Your task to perform on an android device: Show me productivity apps on the Play Store Image 0: 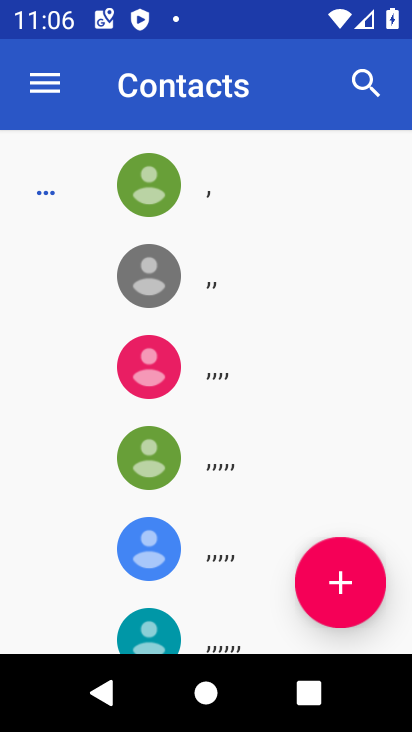
Step 0: drag from (223, 584) to (295, 326)
Your task to perform on an android device: Show me productivity apps on the Play Store Image 1: 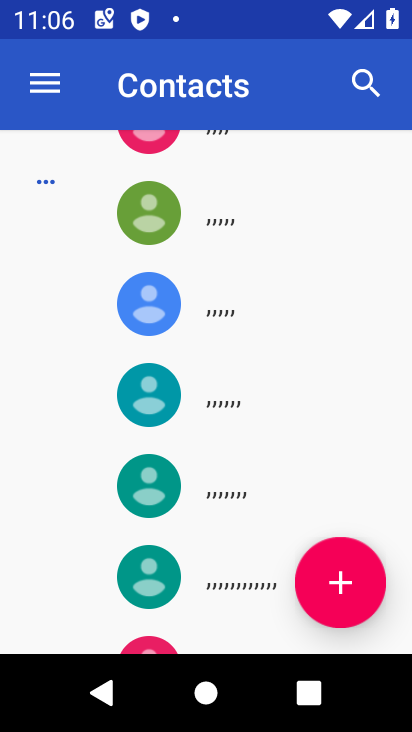
Step 1: drag from (230, 547) to (236, 321)
Your task to perform on an android device: Show me productivity apps on the Play Store Image 2: 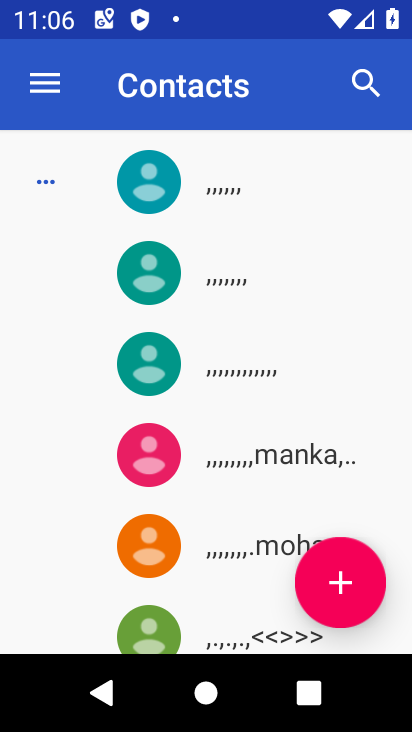
Step 2: press home button
Your task to perform on an android device: Show me productivity apps on the Play Store Image 3: 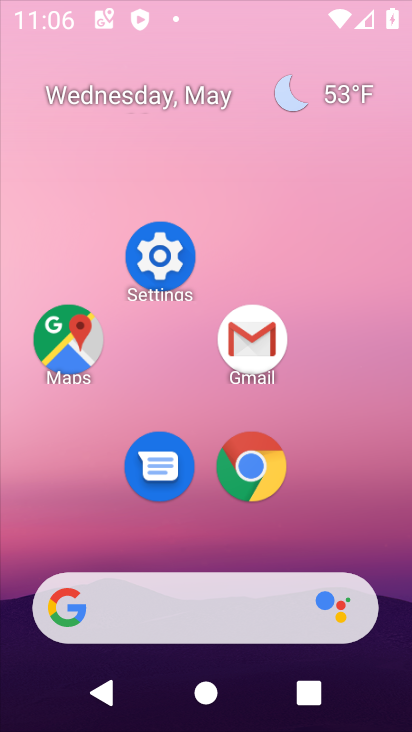
Step 3: drag from (198, 605) to (215, 270)
Your task to perform on an android device: Show me productivity apps on the Play Store Image 4: 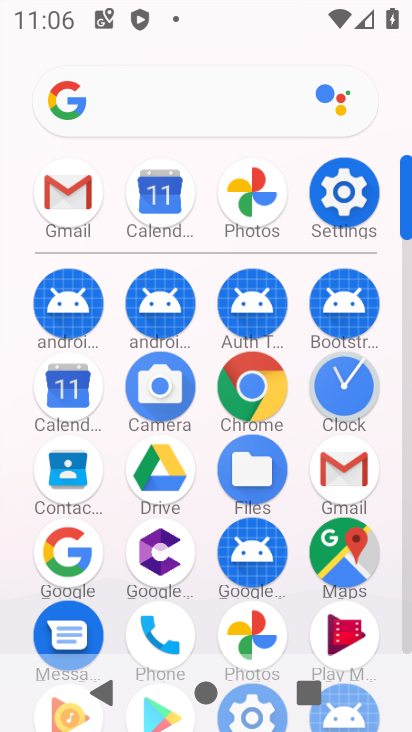
Step 4: drag from (215, 605) to (197, 120)
Your task to perform on an android device: Show me productivity apps on the Play Store Image 5: 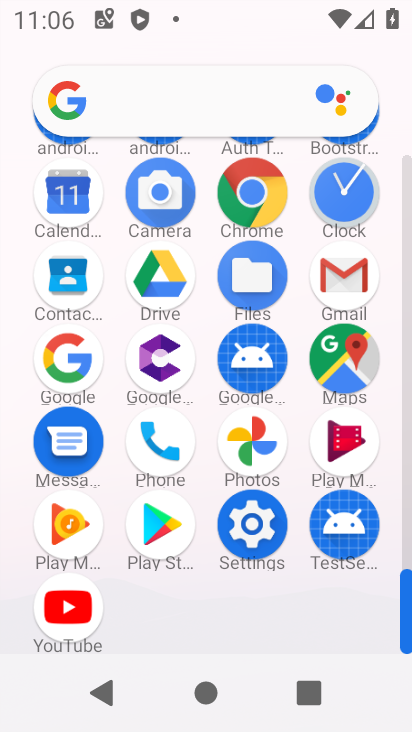
Step 5: click (143, 527)
Your task to perform on an android device: Show me productivity apps on the Play Store Image 6: 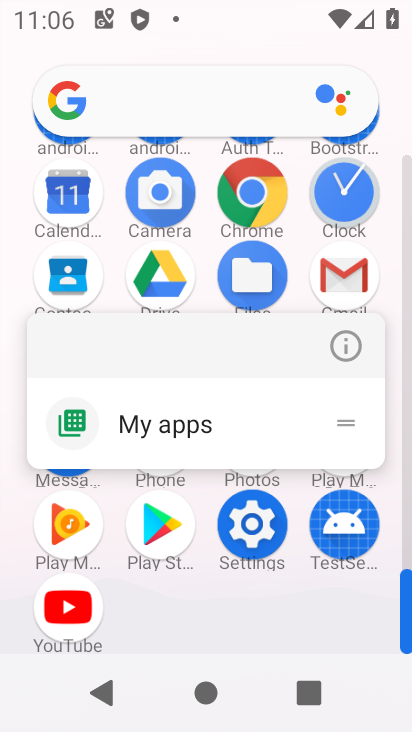
Step 6: click (336, 348)
Your task to perform on an android device: Show me productivity apps on the Play Store Image 7: 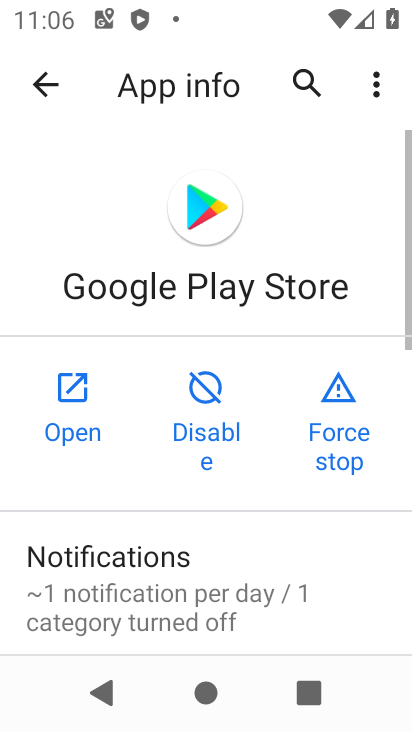
Step 7: click (72, 395)
Your task to perform on an android device: Show me productivity apps on the Play Store Image 8: 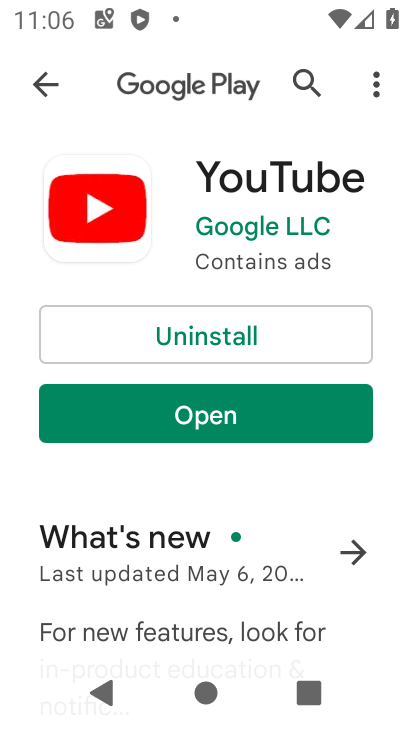
Step 8: click (56, 84)
Your task to perform on an android device: Show me productivity apps on the Play Store Image 9: 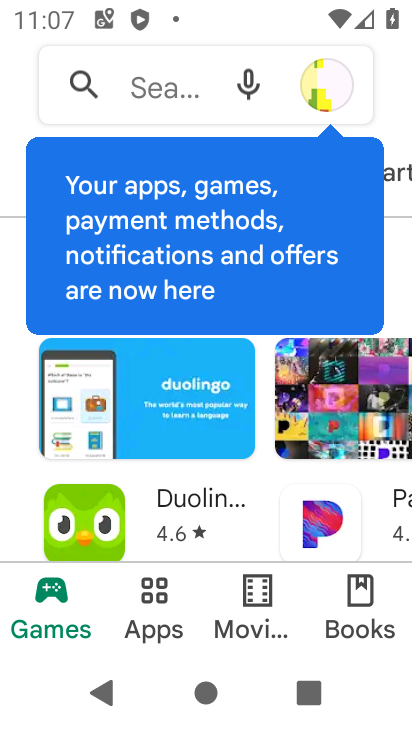
Step 9: drag from (249, 516) to (269, 205)
Your task to perform on an android device: Show me productivity apps on the Play Store Image 10: 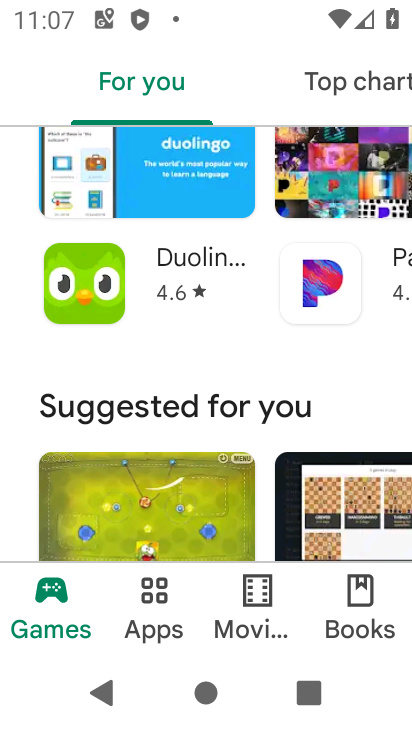
Step 10: drag from (265, 410) to (274, 171)
Your task to perform on an android device: Show me productivity apps on the Play Store Image 11: 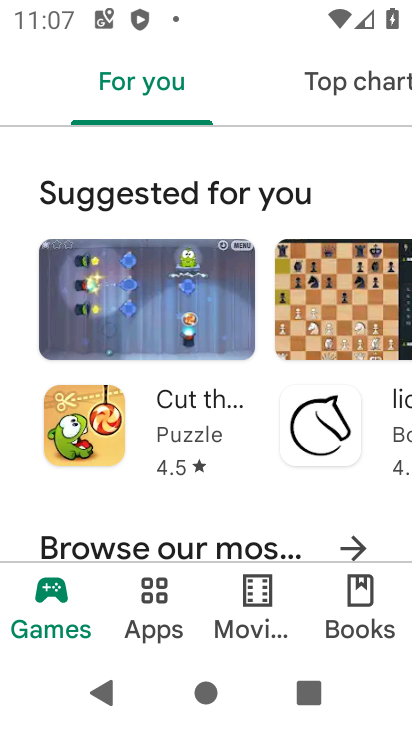
Step 11: click (44, 602)
Your task to perform on an android device: Show me productivity apps on the Play Store Image 12: 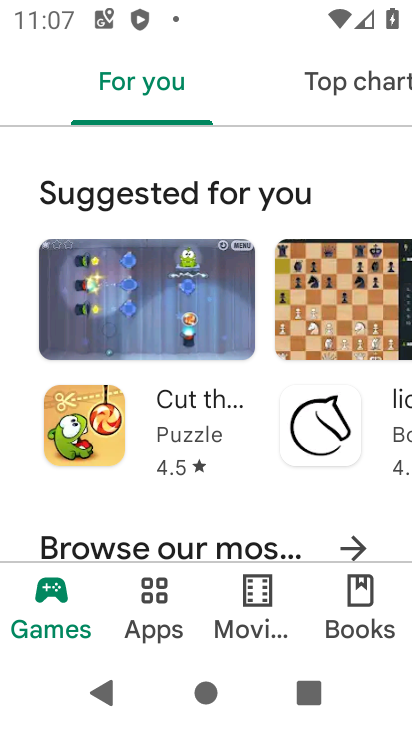
Step 12: drag from (308, 224) to (308, 649)
Your task to perform on an android device: Show me productivity apps on the Play Store Image 13: 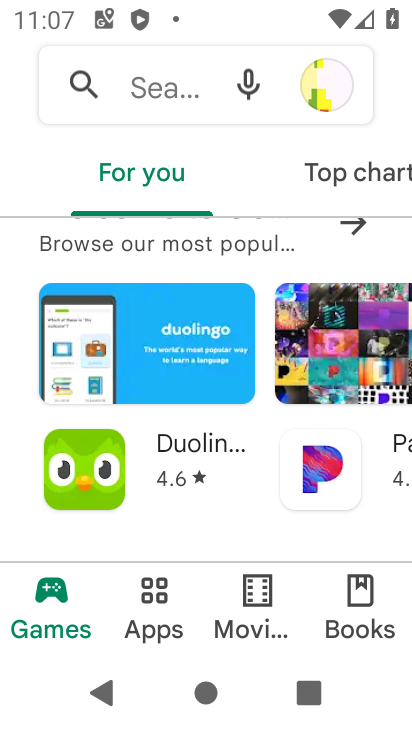
Step 13: click (366, 183)
Your task to perform on an android device: Show me productivity apps on the Play Store Image 14: 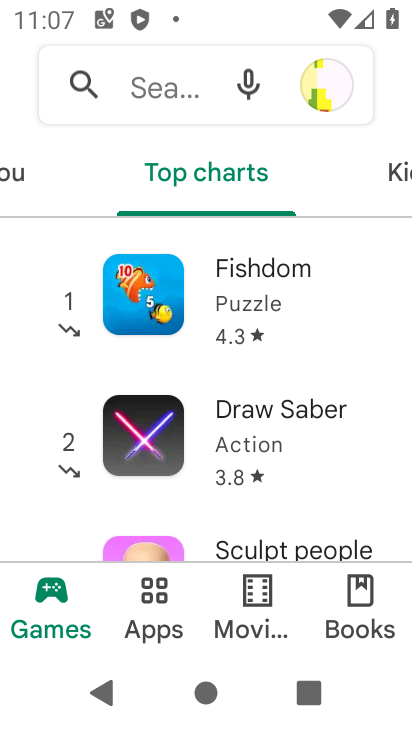
Step 14: drag from (239, 412) to (284, 101)
Your task to perform on an android device: Show me productivity apps on the Play Store Image 15: 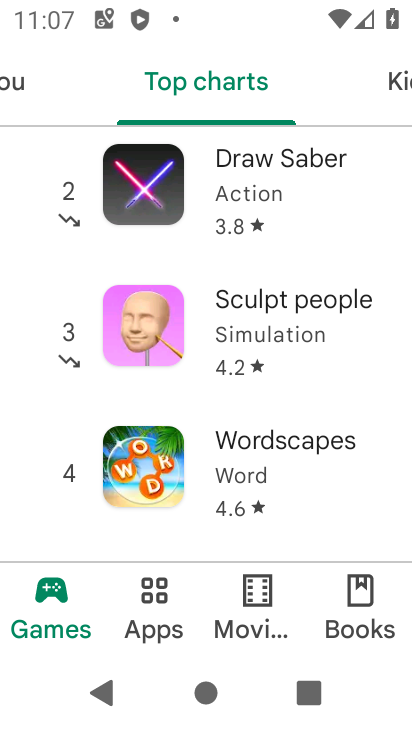
Step 15: drag from (221, 164) to (274, 579)
Your task to perform on an android device: Show me productivity apps on the Play Store Image 16: 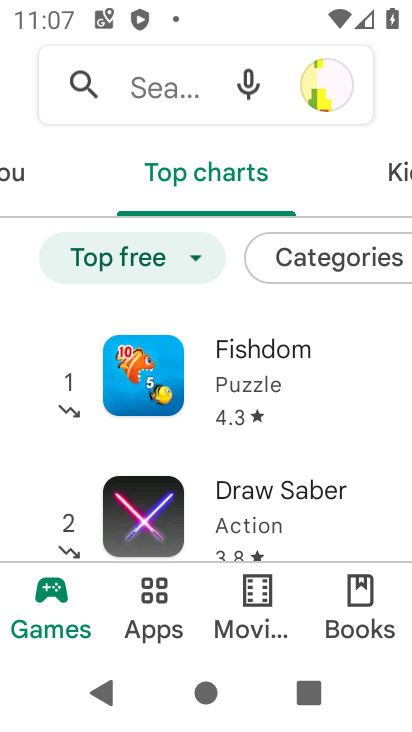
Step 16: click (17, 160)
Your task to perform on an android device: Show me productivity apps on the Play Store Image 17: 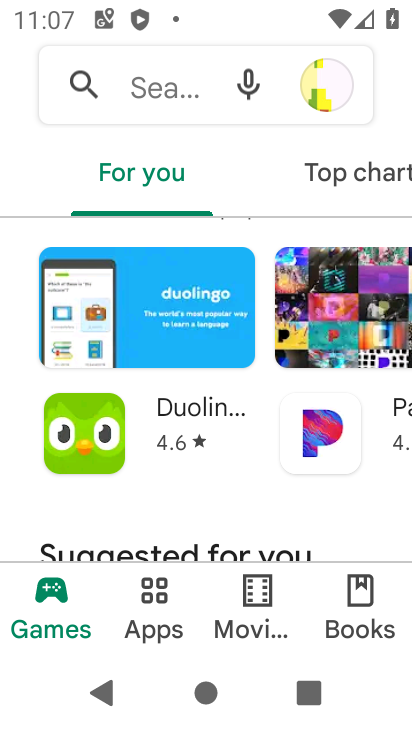
Step 17: task complete